Your task to perform on an android device: empty trash in the gmail app Image 0: 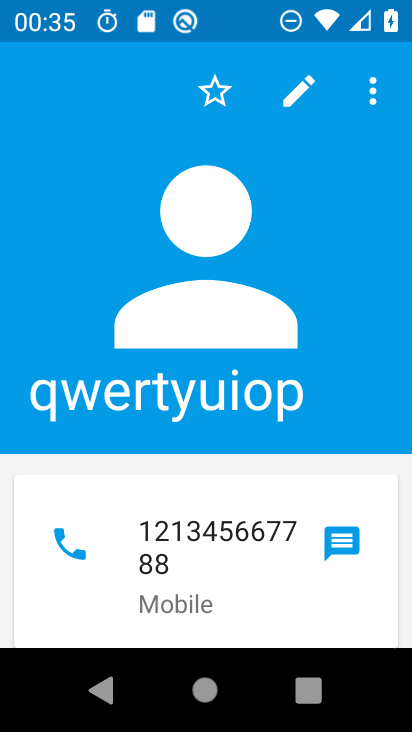
Step 0: press home button
Your task to perform on an android device: empty trash in the gmail app Image 1: 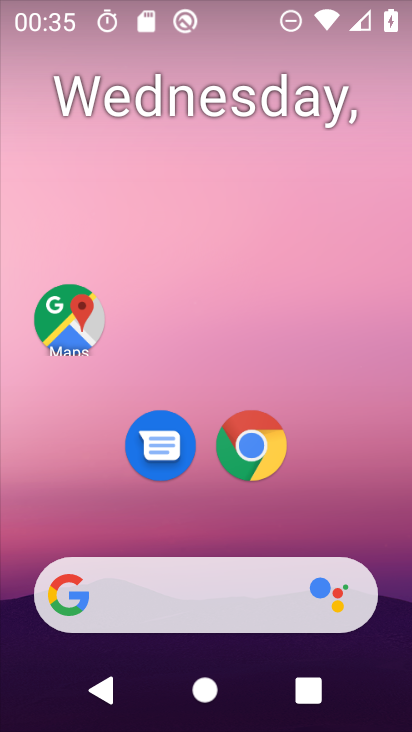
Step 1: drag from (174, 535) to (277, 0)
Your task to perform on an android device: empty trash in the gmail app Image 2: 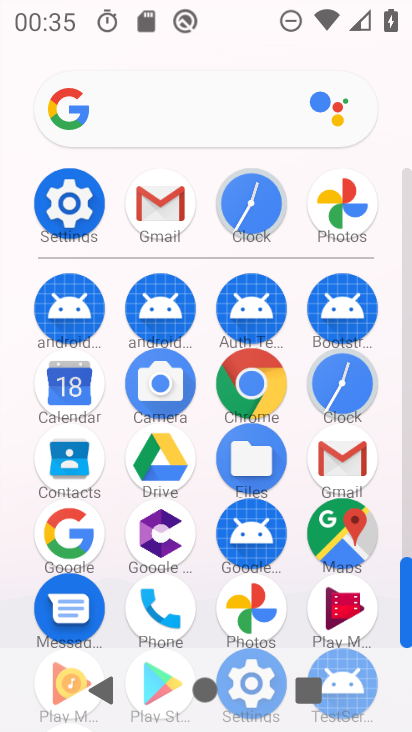
Step 2: click (347, 466)
Your task to perform on an android device: empty trash in the gmail app Image 3: 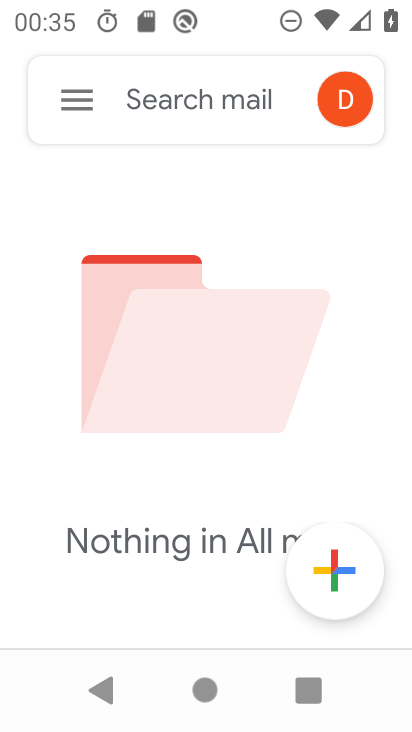
Step 3: click (78, 105)
Your task to perform on an android device: empty trash in the gmail app Image 4: 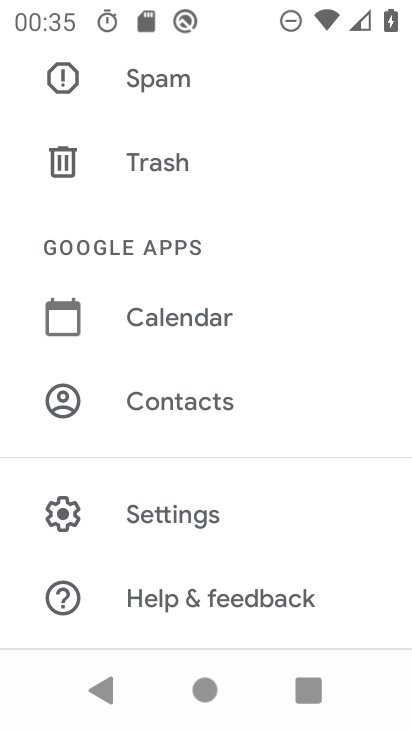
Step 4: click (199, 153)
Your task to perform on an android device: empty trash in the gmail app Image 5: 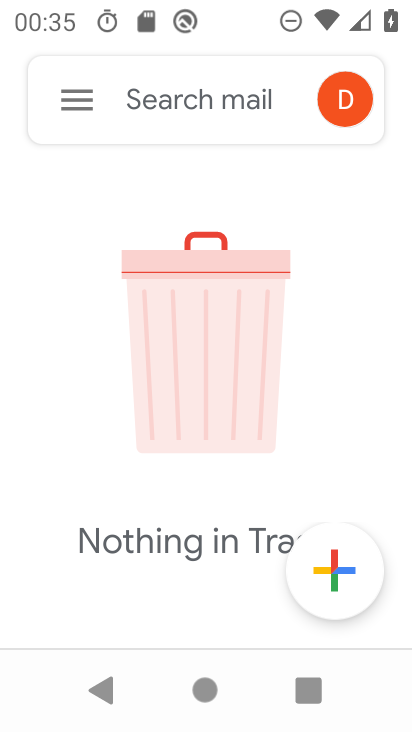
Step 5: task complete